Your task to perform on an android device: turn notification dots off Image 0: 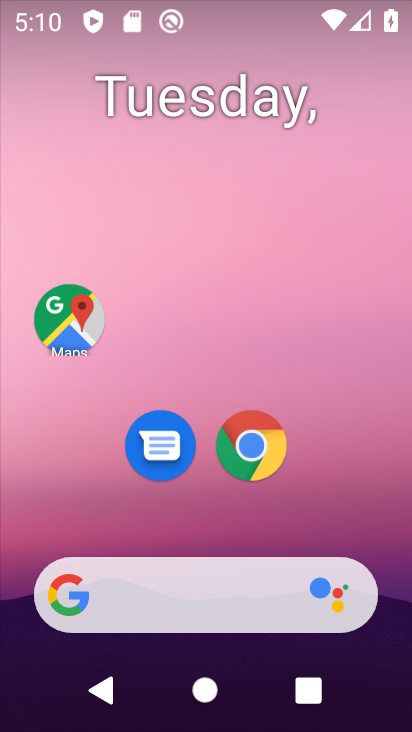
Step 0: drag from (290, 502) to (297, 122)
Your task to perform on an android device: turn notification dots off Image 1: 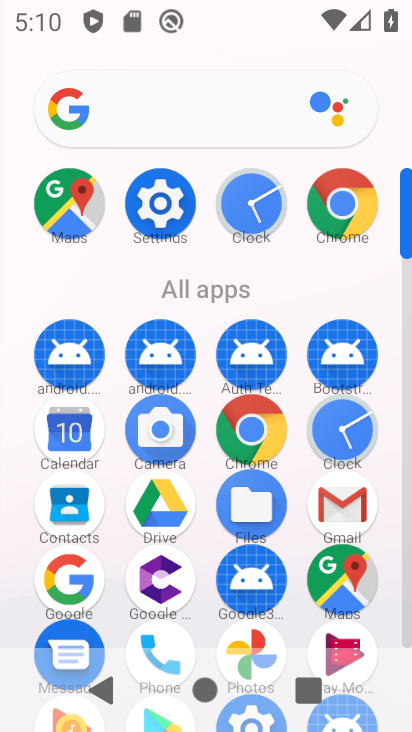
Step 1: click (170, 206)
Your task to perform on an android device: turn notification dots off Image 2: 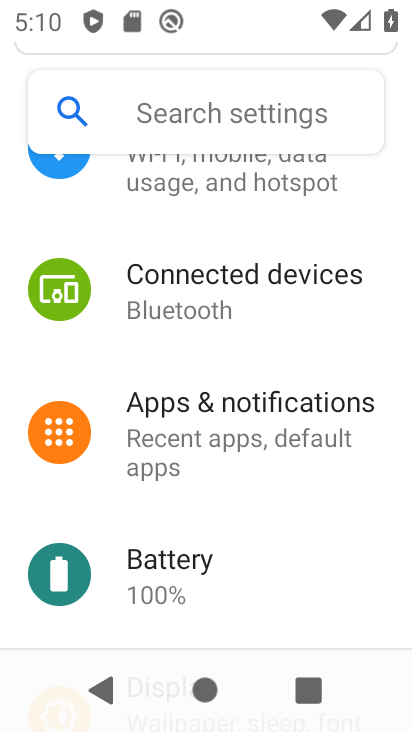
Step 2: click (248, 422)
Your task to perform on an android device: turn notification dots off Image 3: 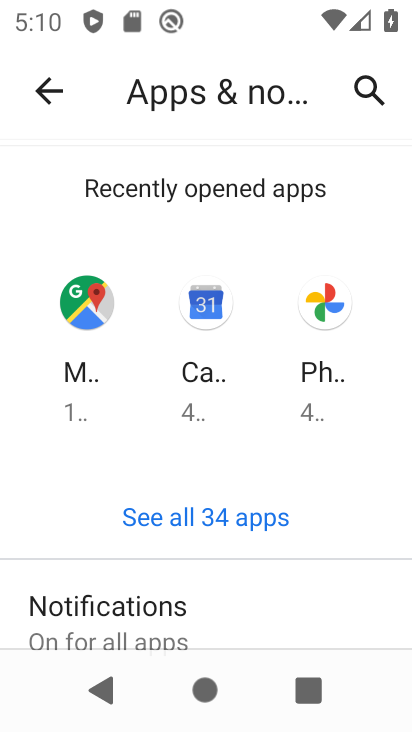
Step 3: drag from (303, 625) to (358, 200)
Your task to perform on an android device: turn notification dots off Image 4: 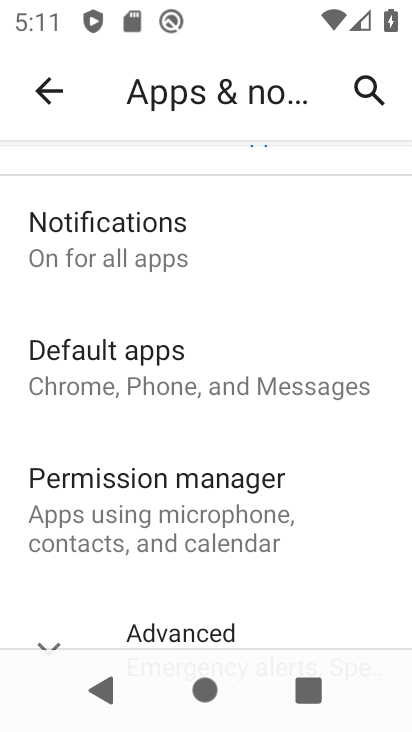
Step 4: click (122, 253)
Your task to perform on an android device: turn notification dots off Image 5: 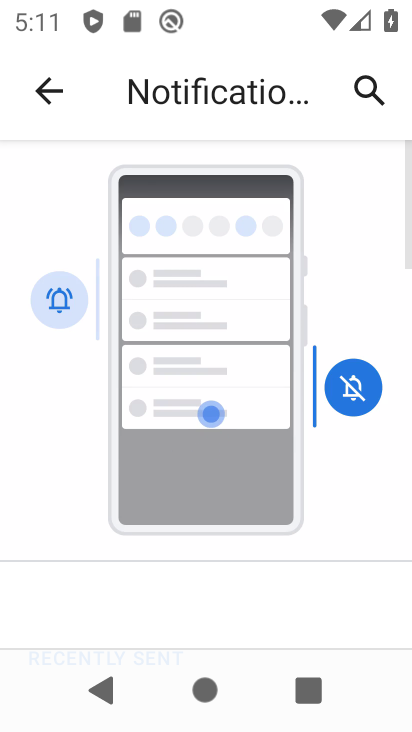
Step 5: drag from (333, 583) to (342, 310)
Your task to perform on an android device: turn notification dots off Image 6: 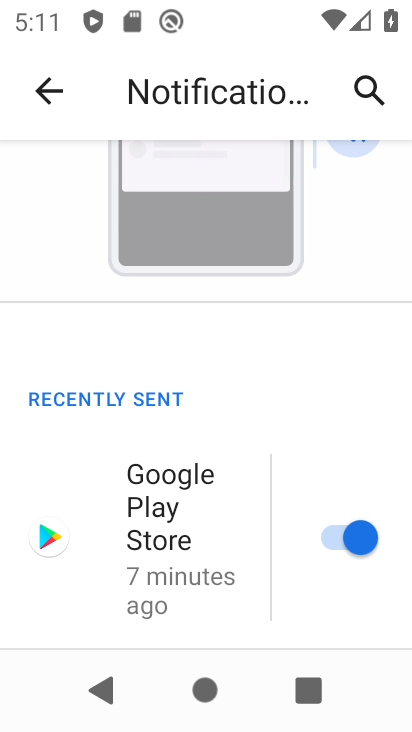
Step 6: drag from (293, 645) to (333, 298)
Your task to perform on an android device: turn notification dots off Image 7: 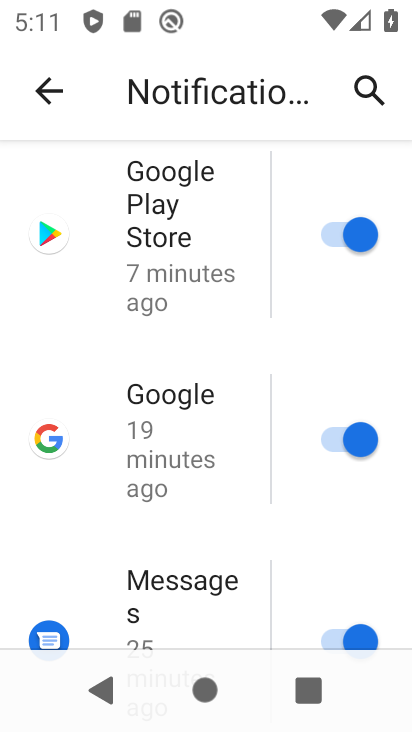
Step 7: drag from (275, 579) to (301, 217)
Your task to perform on an android device: turn notification dots off Image 8: 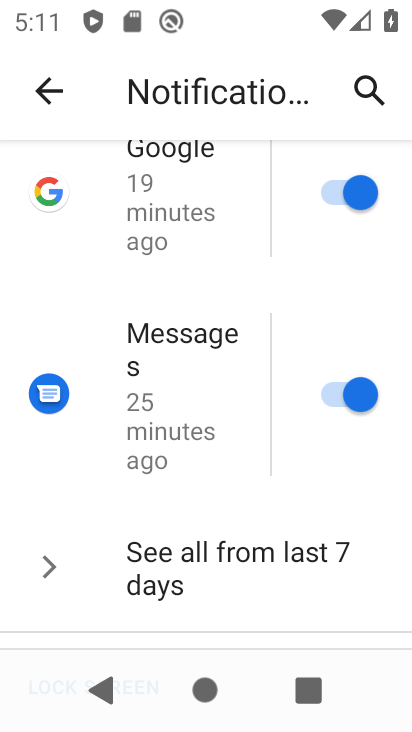
Step 8: drag from (286, 611) to (309, 325)
Your task to perform on an android device: turn notification dots off Image 9: 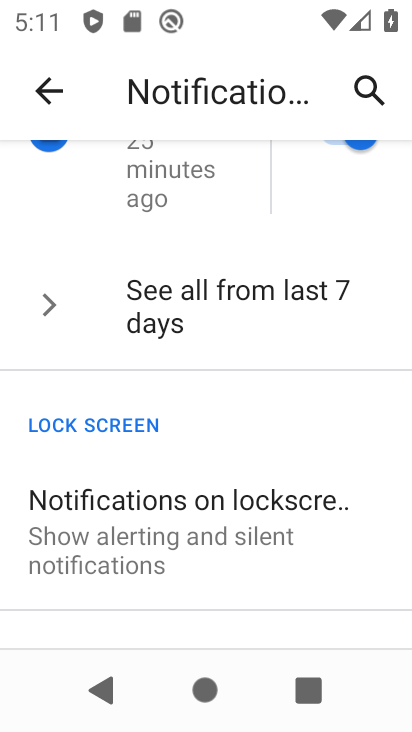
Step 9: drag from (254, 623) to (289, 380)
Your task to perform on an android device: turn notification dots off Image 10: 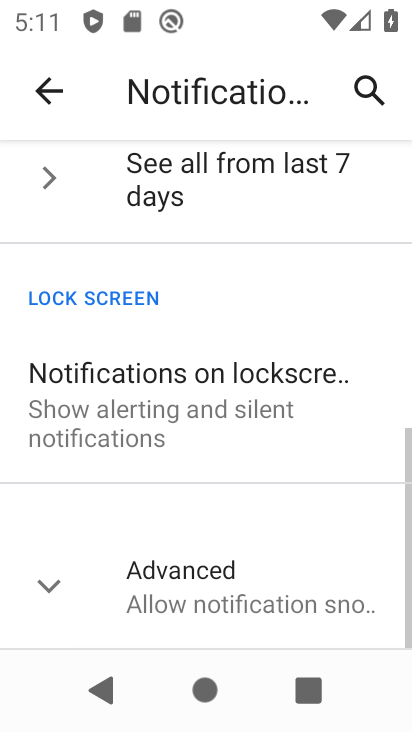
Step 10: drag from (250, 592) to (292, 300)
Your task to perform on an android device: turn notification dots off Image 11: 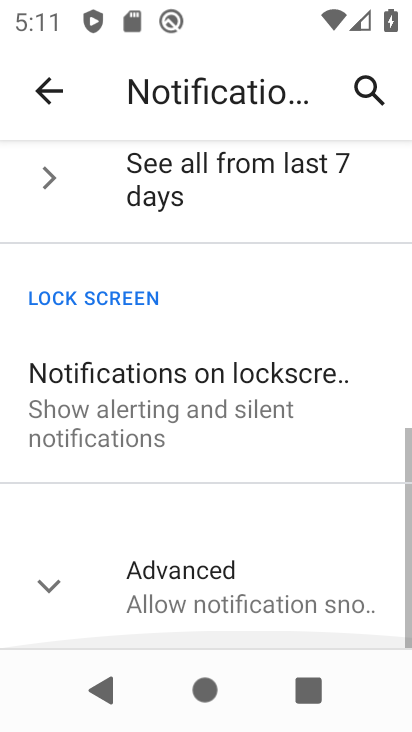
Step 11: drag from (255, 548) to (302, 380)
Your task to perform on an android device: turn notification dots off Image 12: 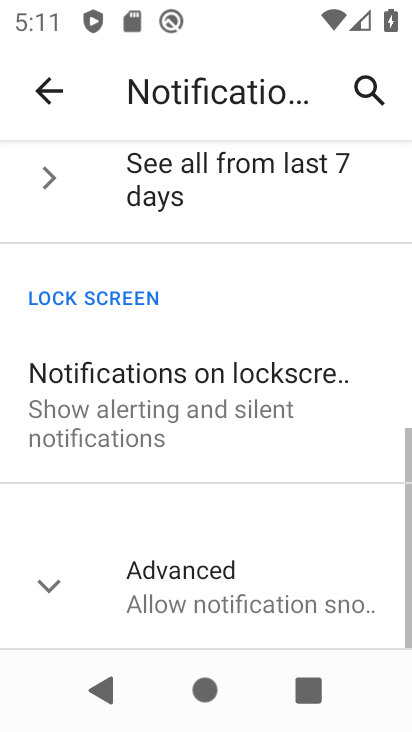
Step 12: click (257, 591)
Your task to perform on an android device: turn notification dots off Image 13: 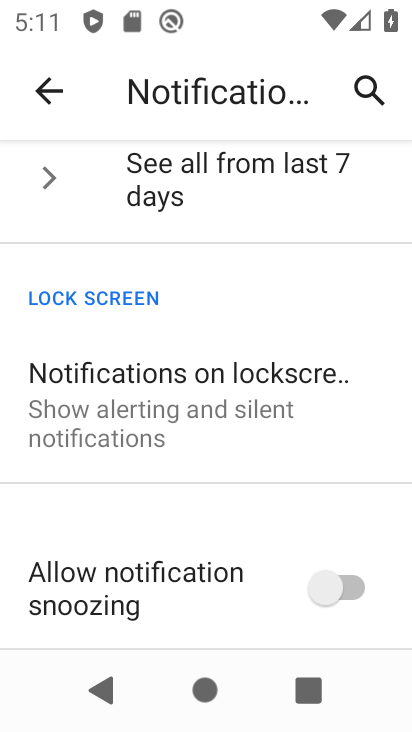
Step 13: task complete